Your task to perform on an android device: toggle show notifications on the lock screen Image 0: 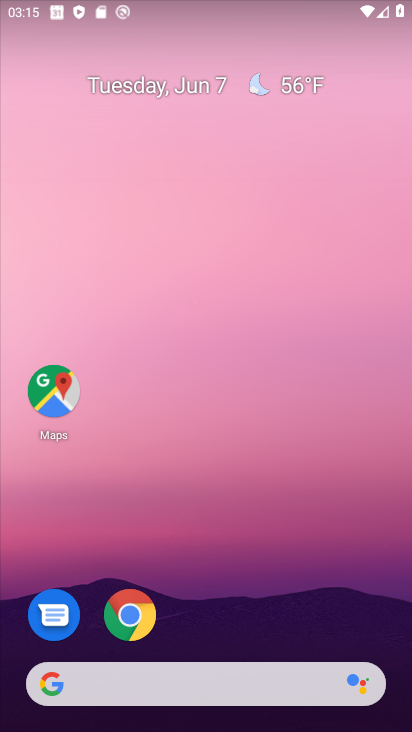
Step 0: drag from (201, 657) to (208, 325)
Your task to perform on an android device: toggle show notifications on the lock screen Image 1: 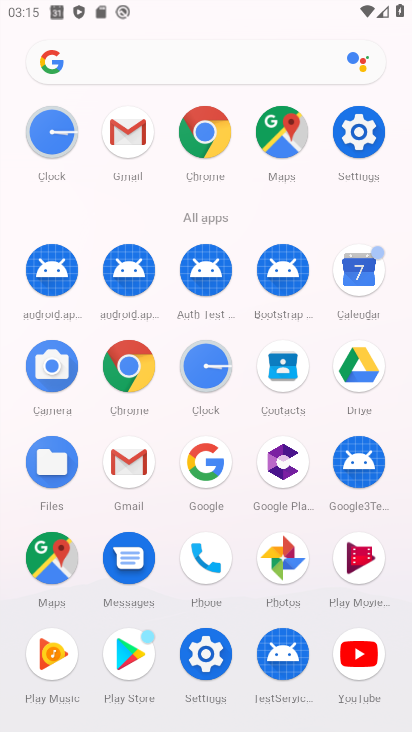
Step 1: click (353, 134)
Your task to perform on an android device: toggle show notifications on the lock screen Image 2: 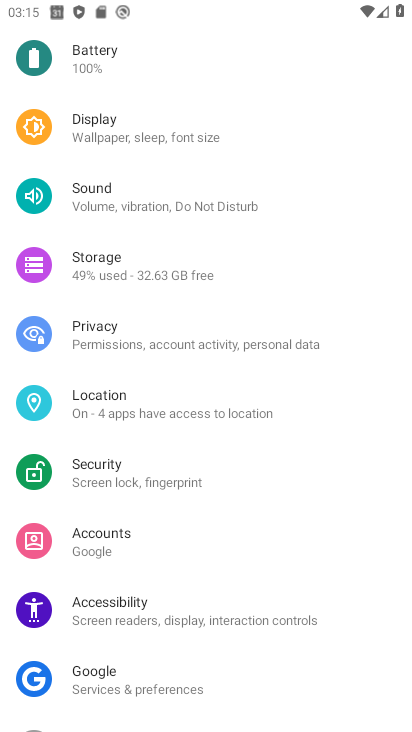
Step 2: drag from (188, 179) to (180, 616)
Your task to perform on an android device: toggle show notifications on the lock screen Image 3: 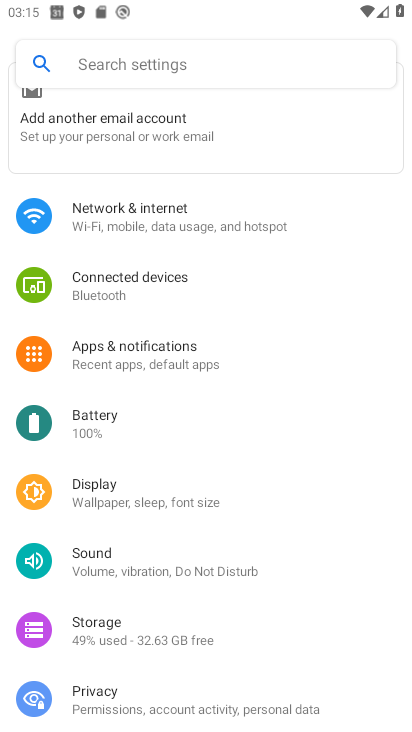
Step 3: click (125, 700)
Your task to perform on an android device: toggle show notifications on the lock screen Image 4: 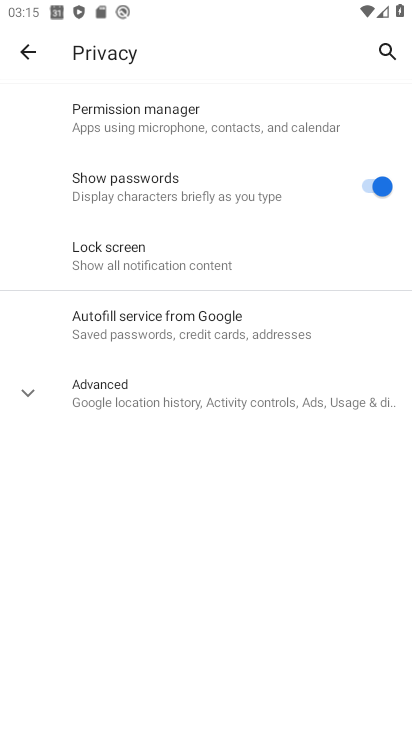
Step 4: click (121, 246)
Your task to perform on an android device: toggle show notifications on the lock screen Image 5: 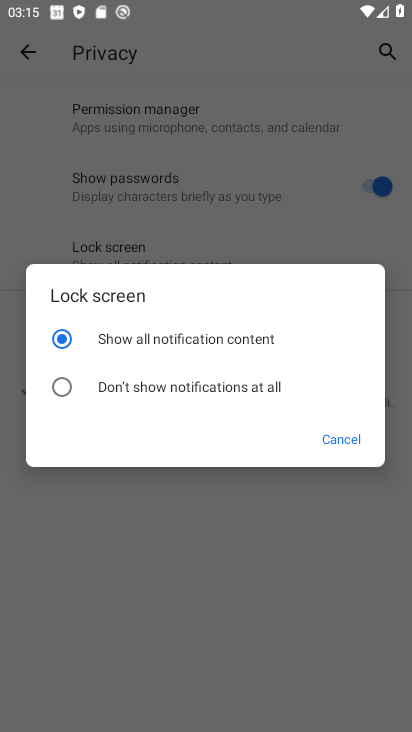
Step 5: click (109, 371)
Your task to perform on an android device: toggle show notifications on the lock screen Image 6: 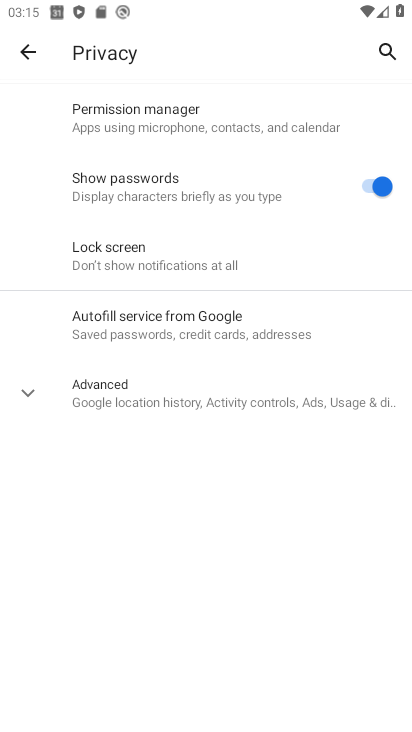
Step 6: task complete